Your task to perform on an android device: Go to network settings Image 0: 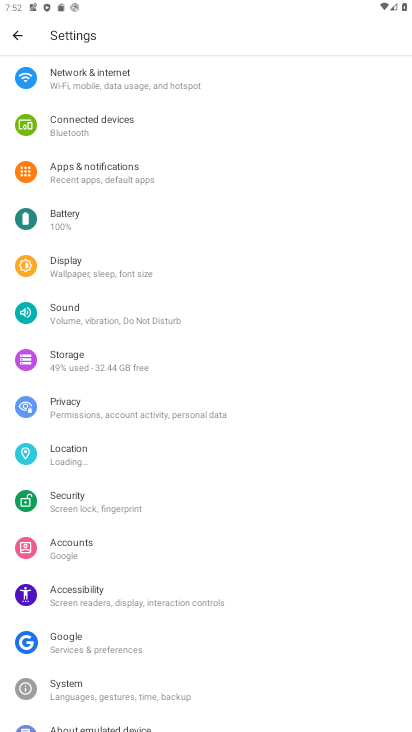
Step 0: click (122, 83)
Your task to perform on an android device: Go to network settings Image 1: 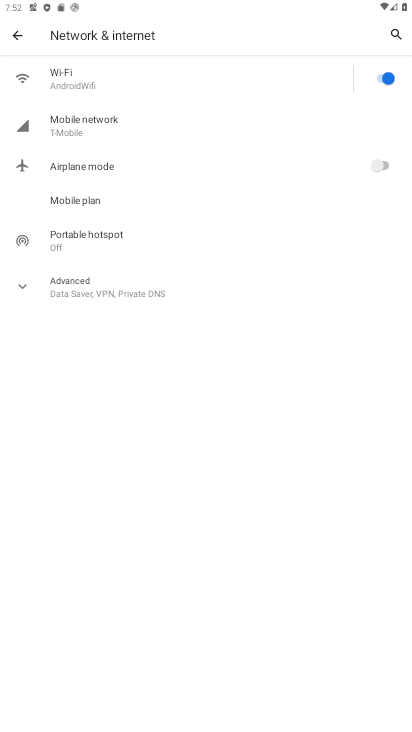
Step 1: task complete